Your task to perform on an android device: Open Amazon Image 0: 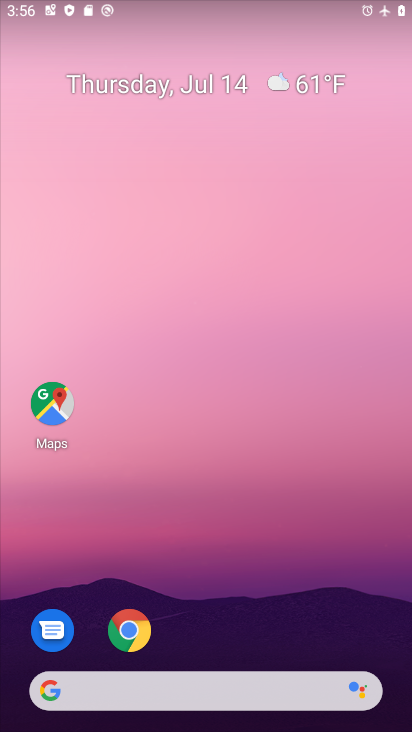
Step 0: drag from (363, 3) to (394, 449)
Your task to perform on an android device: Open Amazon Image 1: 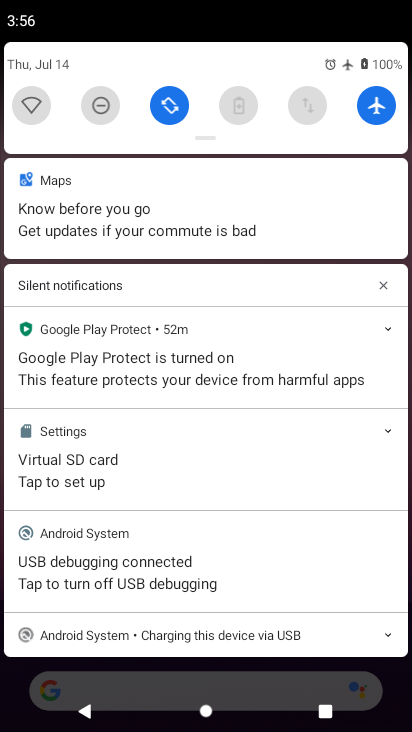
Step 1: click (379, 94)
Your task to perform on an android device: Open Amazon Image 2: 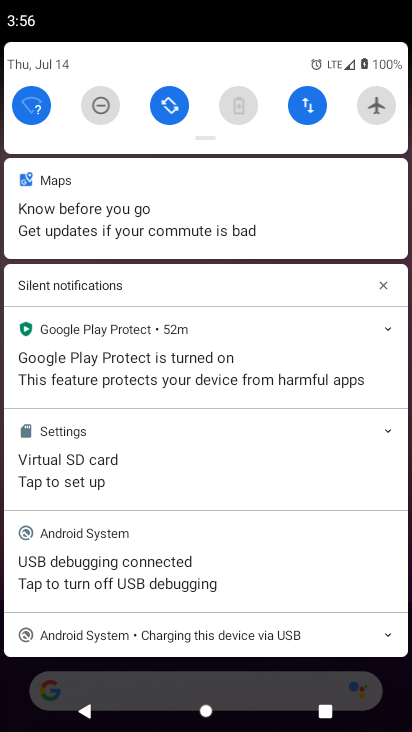
Step 2: drag from (210, 667) to (224, 96)
Your task to perform on an android device: Open Amazon Image 3: 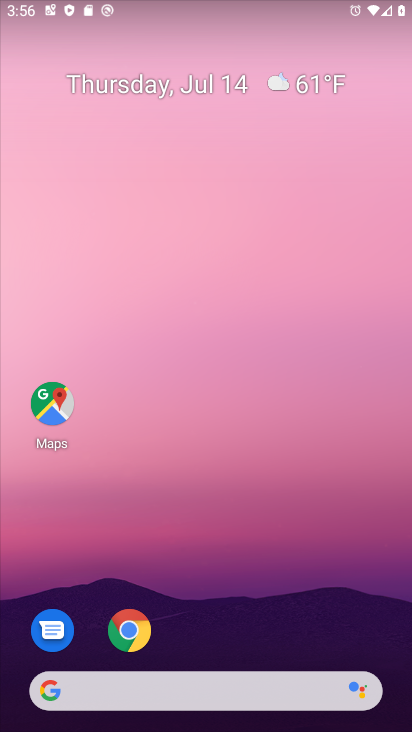
Step 3: drag from (260, 633) to (241, 15)
Your task to perform on an android device: Open Amazon Image 4: 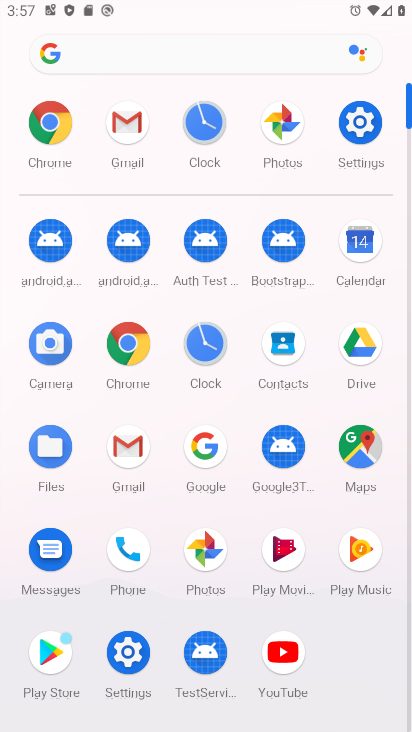
Step 4: click (124, 649)
Your task to perform on an android device: Open Amazon Image 5: 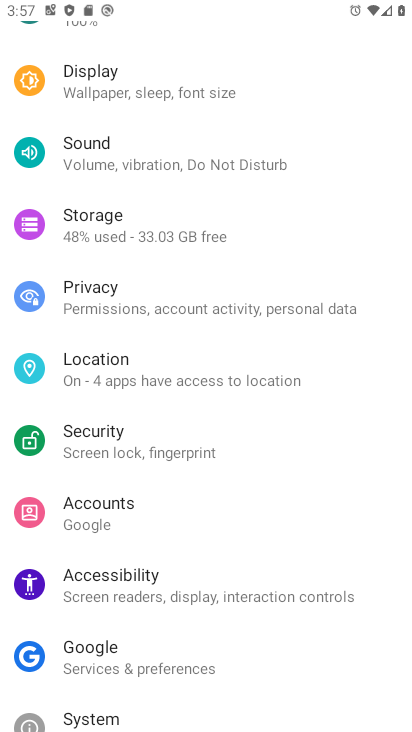
Step 5: press home button
Your task to perform on an android device: Open Amazon Image 6: 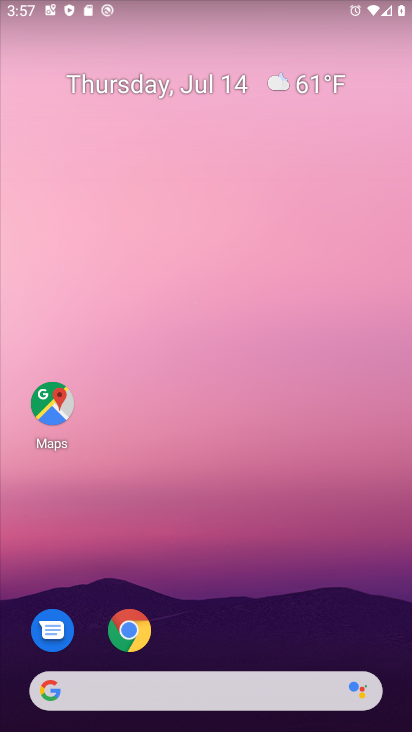
Step 6: click (127, 637)
Your task to perform on an android device: Open Amazon Image 7: 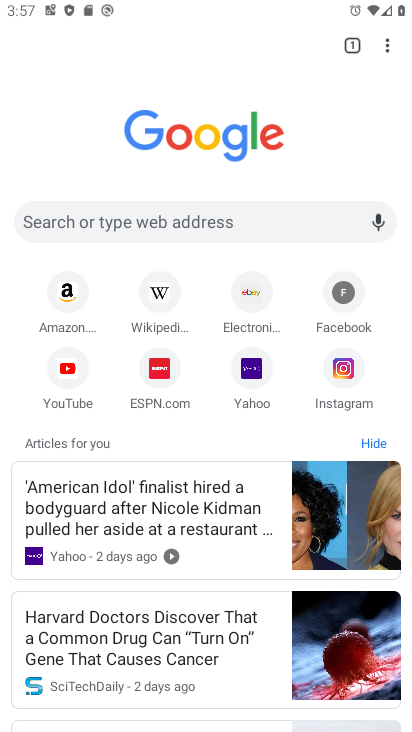
Step 7: click (66, 283)
Your task to perform on an android device: Open Amazon Image 8: 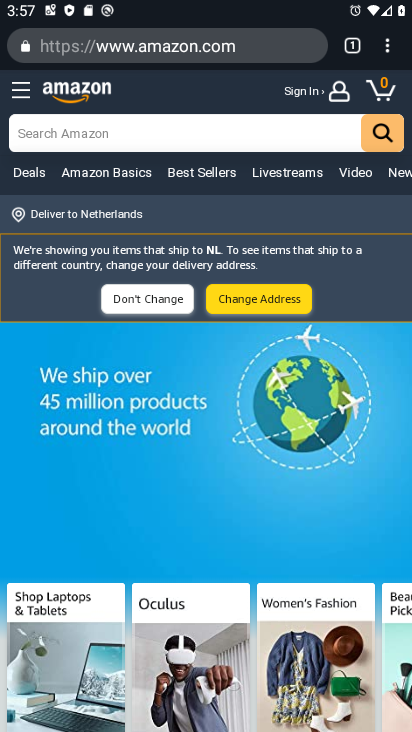
Step 8: task complete